Your task to perform on an android device: turn off location Image 0: 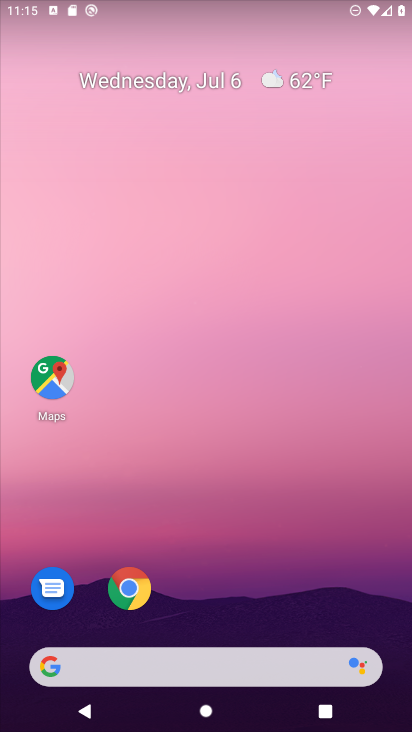
Step 0: drag from (340, 604) to (307, 234)
Your task to perform on an android device: turn off location Image 1: 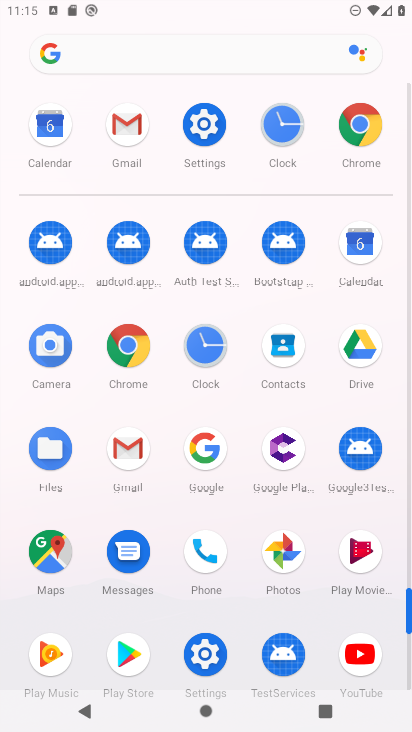
Step 1: click (205, 655)
Your task to perform on an android device: turn off location Image 2: 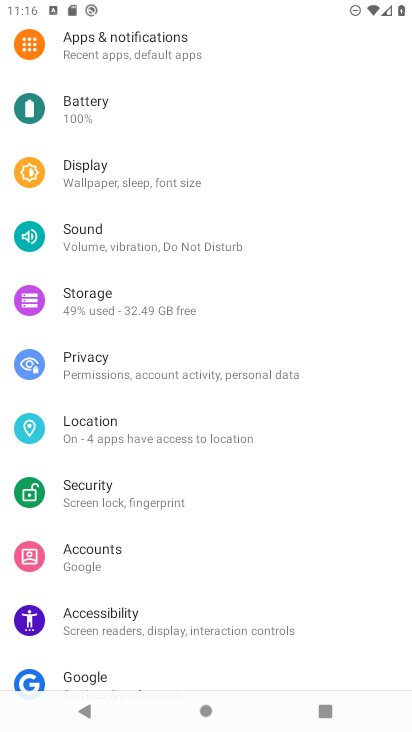
Step 2: click (88, 425)
Your task to perform on an android device: turn off location Image 3: 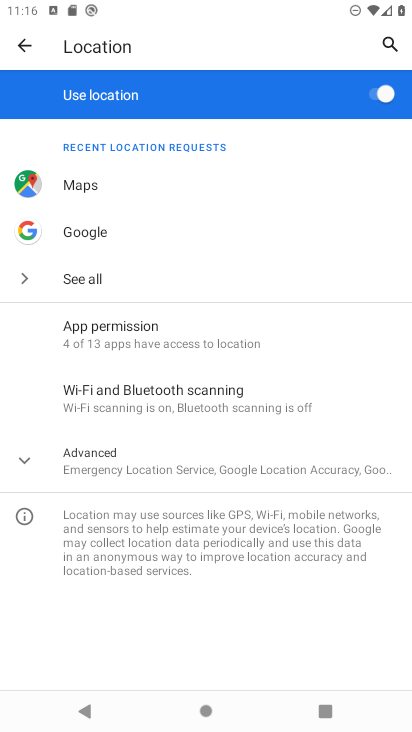
Step 3: click (373, 91)
Your task to perform on an android device: turn off location Image 4: 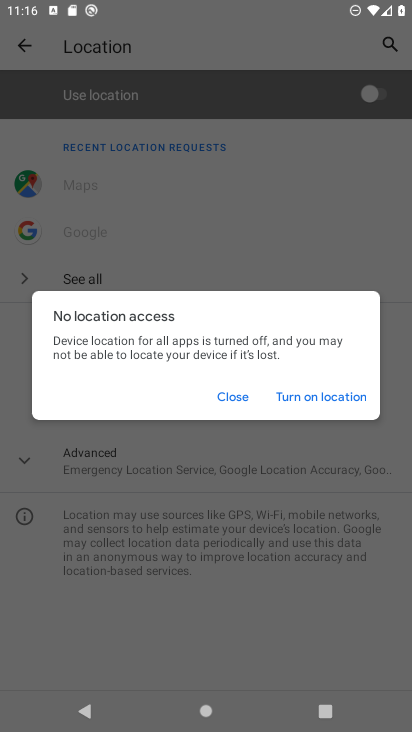
Step 4: click (235, 398)
Your task to perform on an android device: turn off location Image 5: 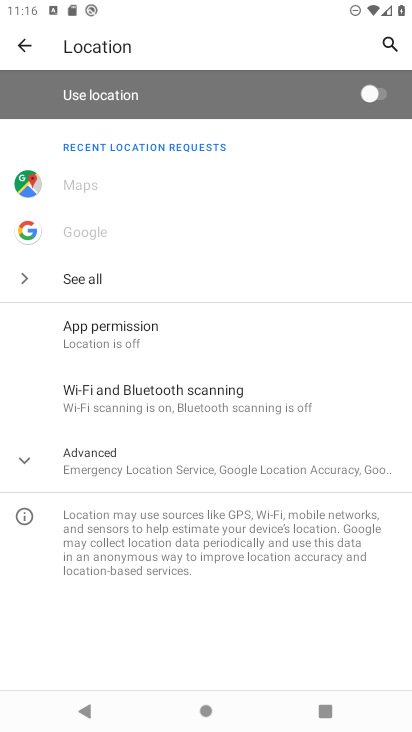
Step 5: task complete